Your task to perform on an android device: Go to battery settings Image 0: 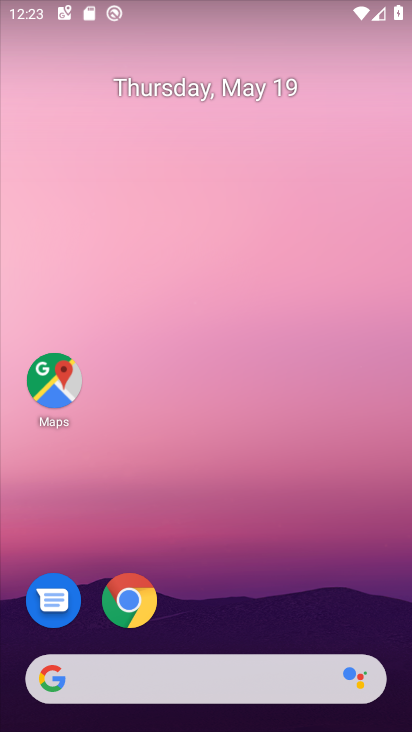
Step 0: drag from (294, 514) to (230, 140)
Your task to perform on an android device: Go to battery settings Image 1: 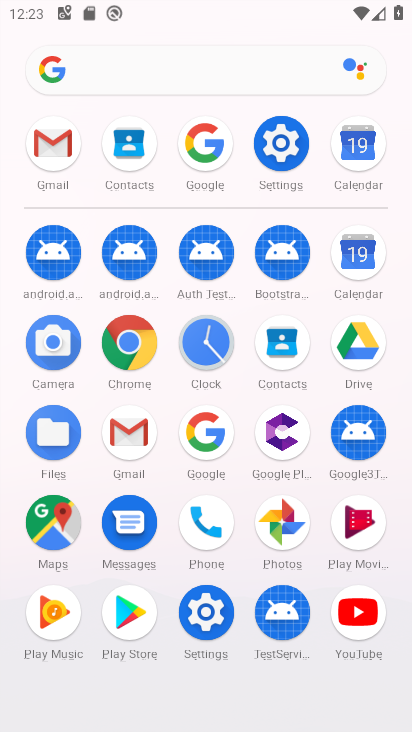
Step 1: click (273, 139)
Your task to perform on an android device: Go to battery settings Image 2: 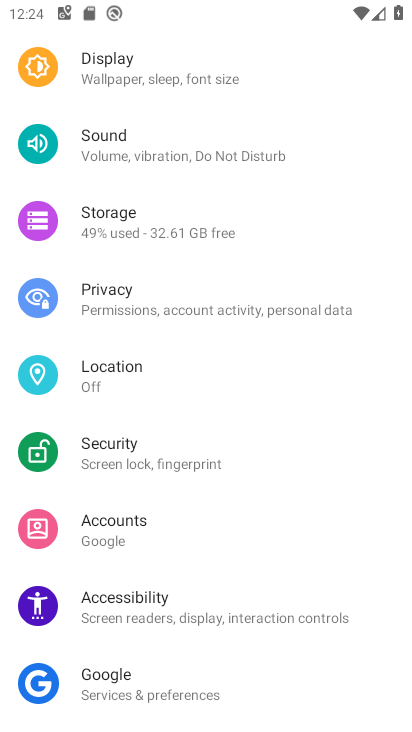
Step 2: drag from (212, 222) to (229, 605)
Your task to perform on an android device: Go to battery settings Image 3: 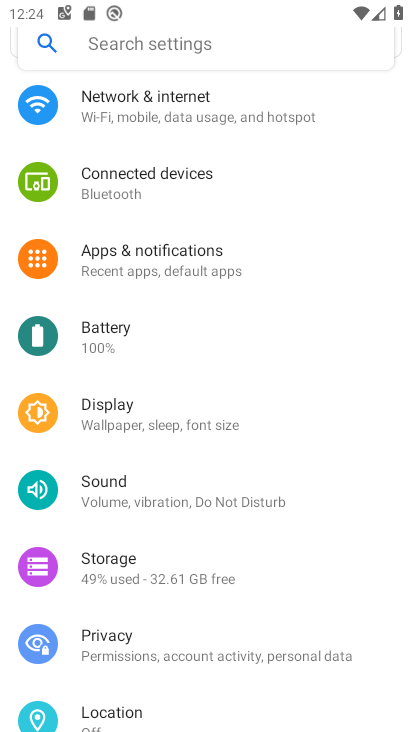
Step 3: click (169, 332)
Your task to perform on an android device: Go to battery settings Image 4: 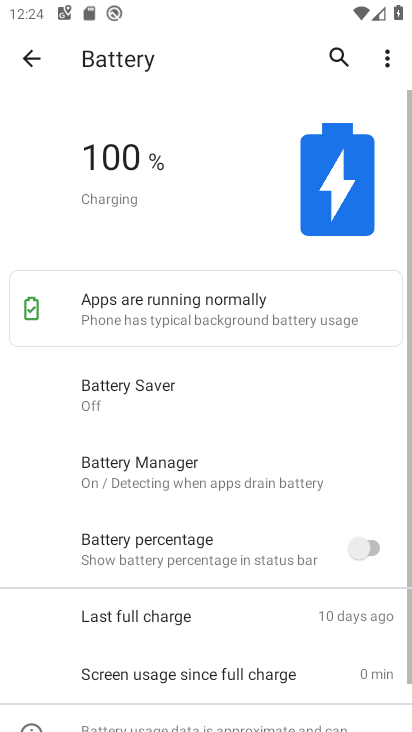
Step 4: task complete